Your task to perform on an android device: Open internet settings Image 0: 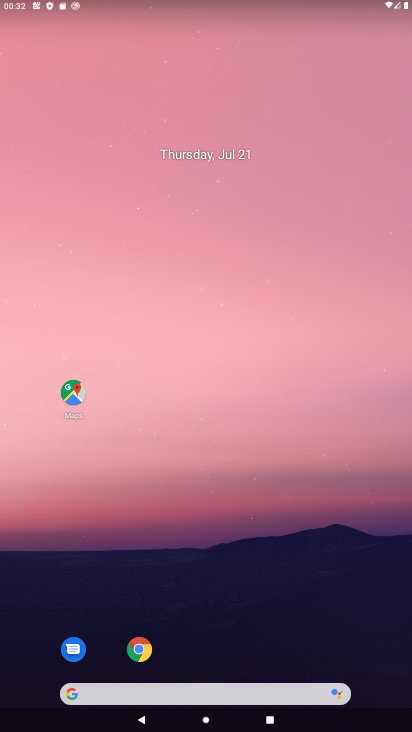
Step 0: drag from (226, 725) to (236, 216)
Your task to perform on an android device: Open internet settings Image 1: 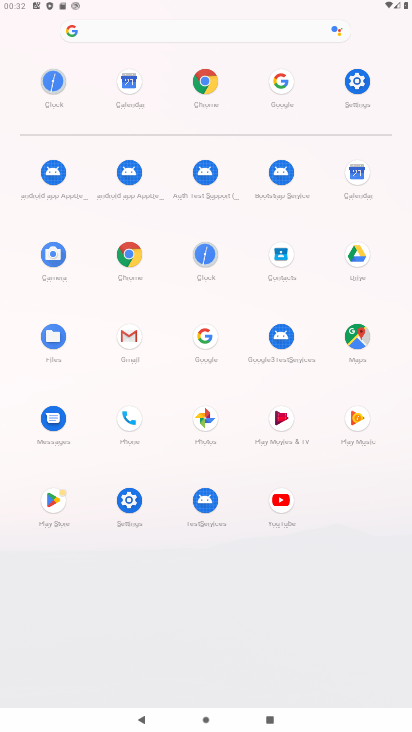
Step 1: click (361, 81)
Your task to perform on an android device: Open internet settings Image 2: 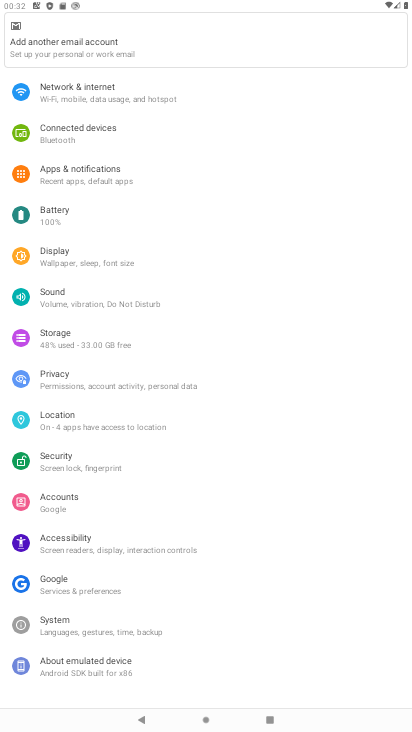
Step 2: click (72, 90)
Your task to perform on an android device: Open internet settings Image 3: 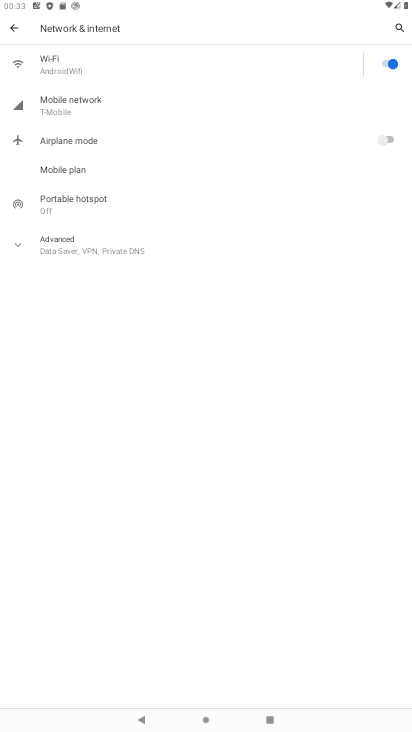
Step 3: task complete